Your task to perform on an android device: turn on data saver in the chrome app Image 0: 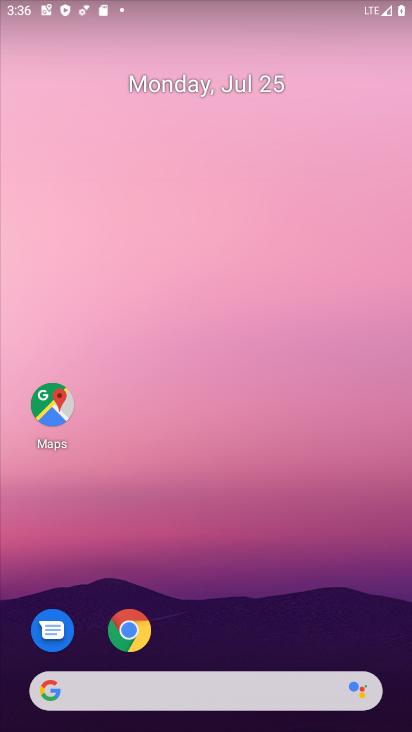
Step 0: drag from (224, 608) to (228, 149)
Your task to perform on an android device: turn on data saver in the chrome app Image 1: 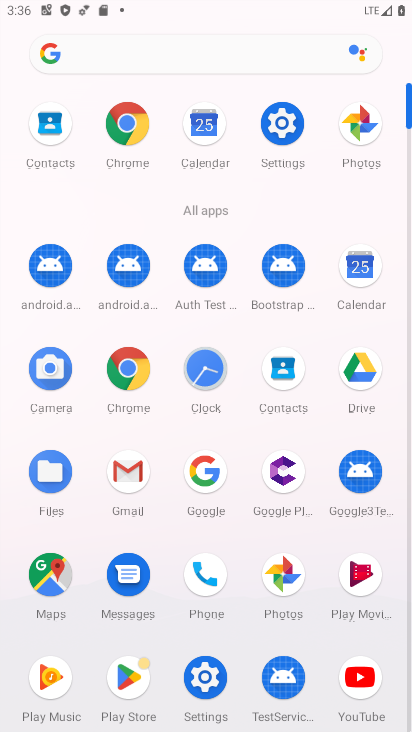
Step 1: click (127, 359)
Your task to perform on an android device: turn on data saver in the chrome app Image 2: 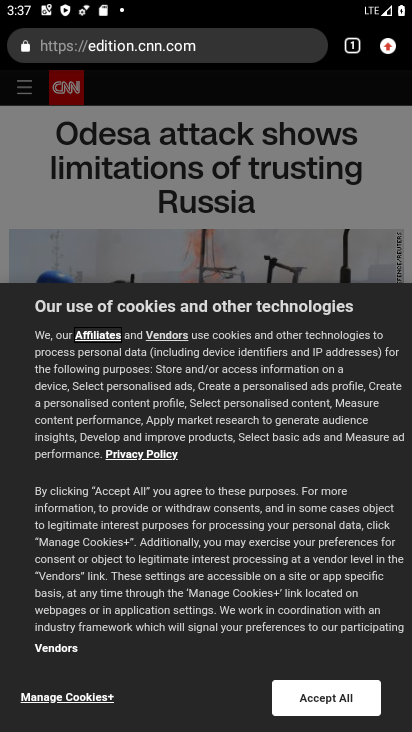
Step 2: click (386, 41)
Your task to perform on an android device: turn on data saver in the chrome app Image 3: 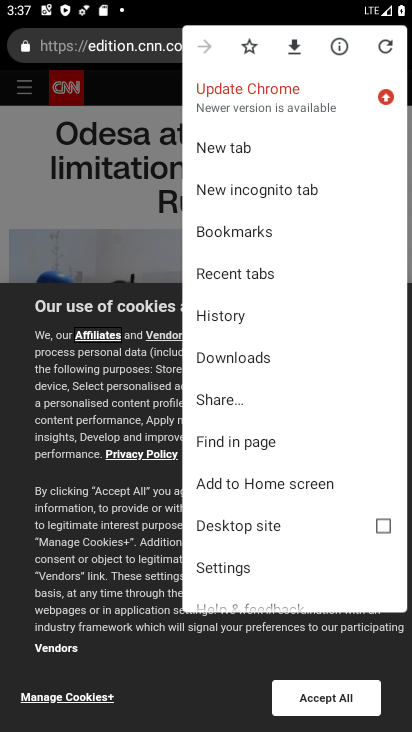
Step 3: click (238, 562)
Your task to perform on an android device: turn on data saver in the chrome app Image 4: 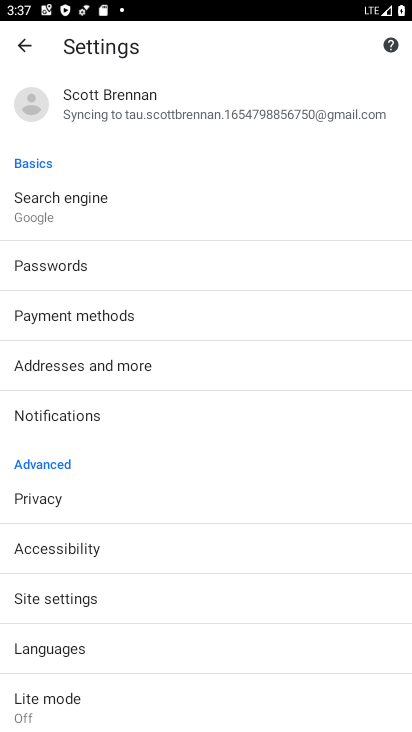
Step 4: click (62, 700)
Your task to perform on an android device: turn on data saver in the chrome app Image 5: 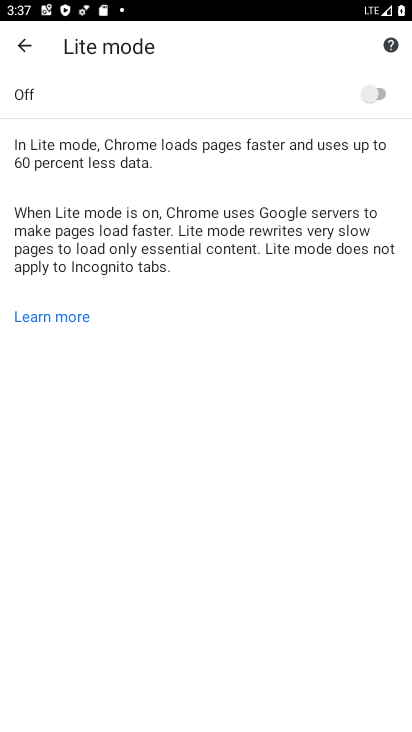
Step 5: click (388, 105)
Your task to perform on an android device: turn on data saver in the chrome app Image 6: 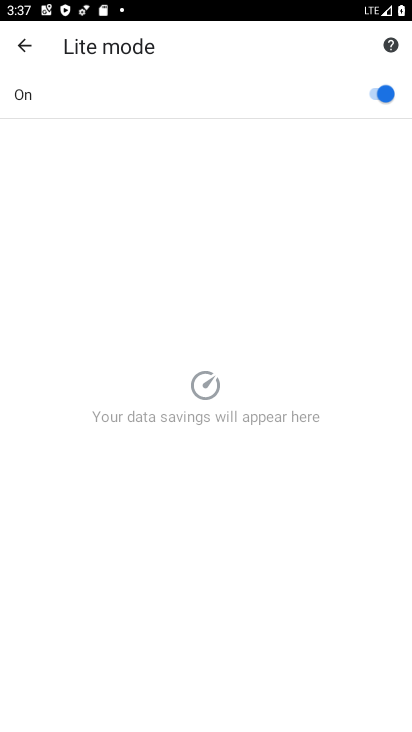
Step 6: task complete